Your task to perform on an android device: Search for pizza restaurants on Maps Image 0: 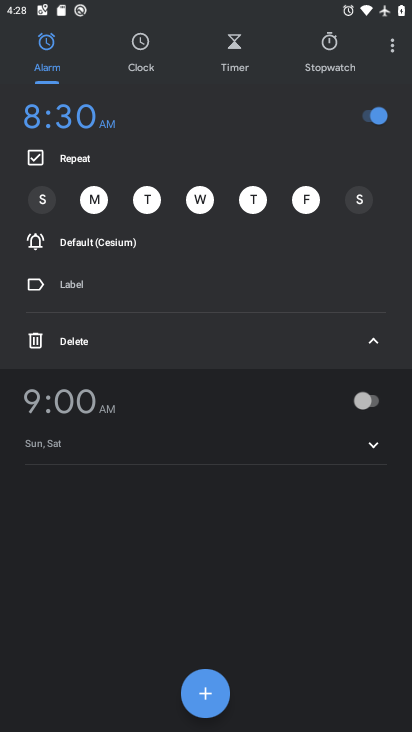
Step 0: press home button
Your task to perform on an android device: Search for pizza restaurants on Maps Image 1: 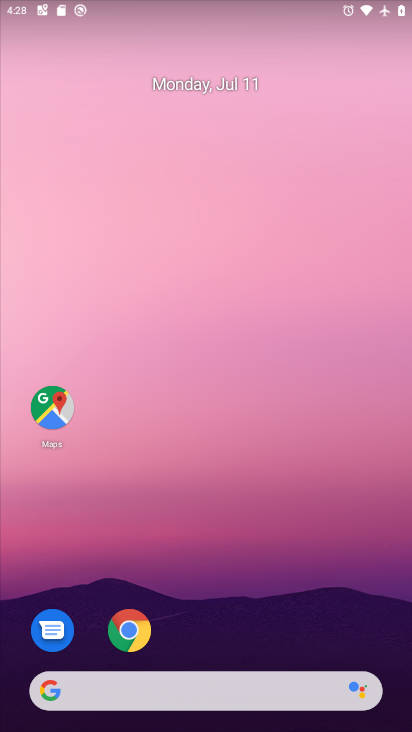
Step 1: drag from (305, 622) to (234, 6)
Your task to perform on an android device: Search for pizza restaurants on Maps Image 2: 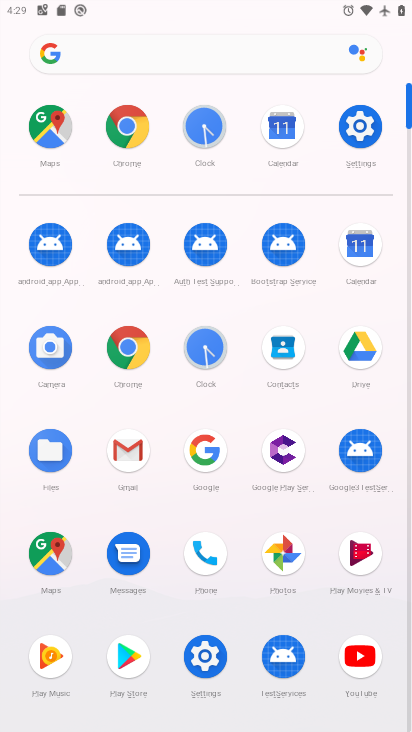
Step 2: click (70, 133)
Your task to perform on an android device: Search for pizza restaurants on Maps Image 3: 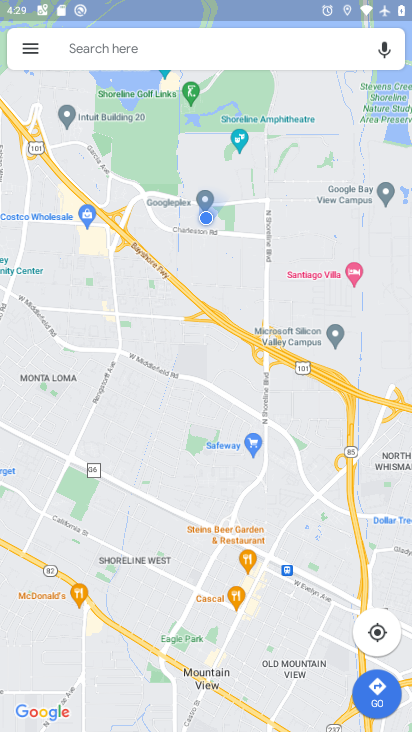
Step 3: click (26, 49)
Your task to perform on an android device: Search for pizza restaurants on Maps Image 4: 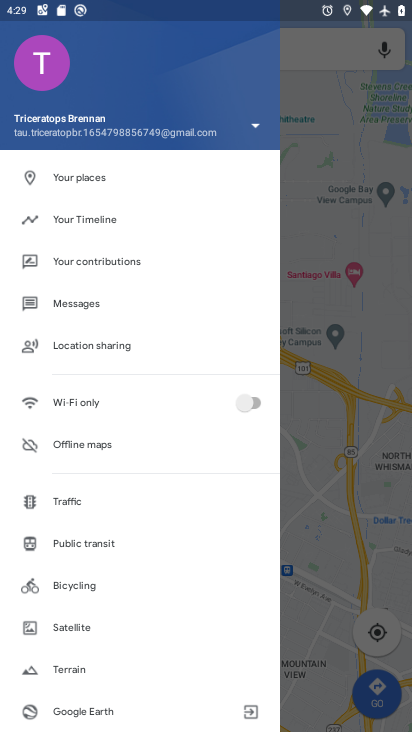
Step 4: click (363, 267)
Your task to perform on an android device: Search for pizza restaurants on Maps Image 5: 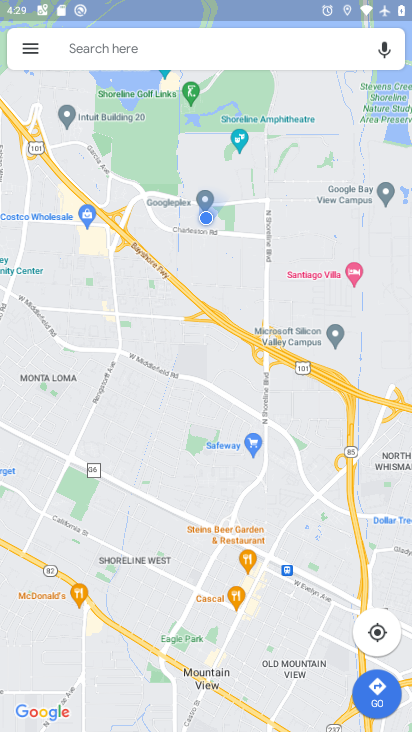
Step 5: click (254, 58)
Your task to perform on an android device: Search for pizza restaurants on Maps Image 6: 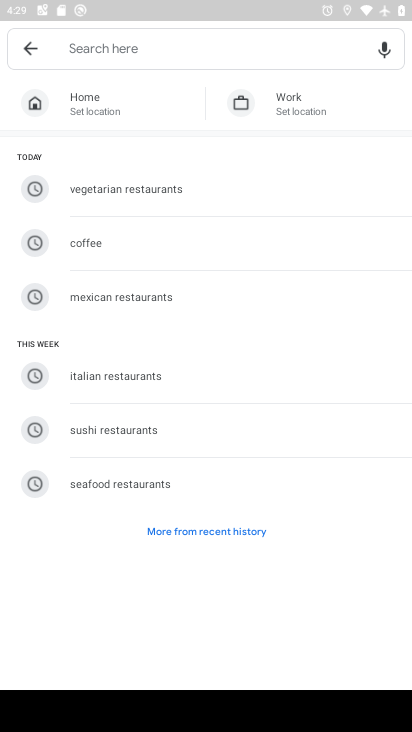
Step 6: type "pizza"
Your task to perform on an android device: Search for pizza restaurants on Maps Image 7: 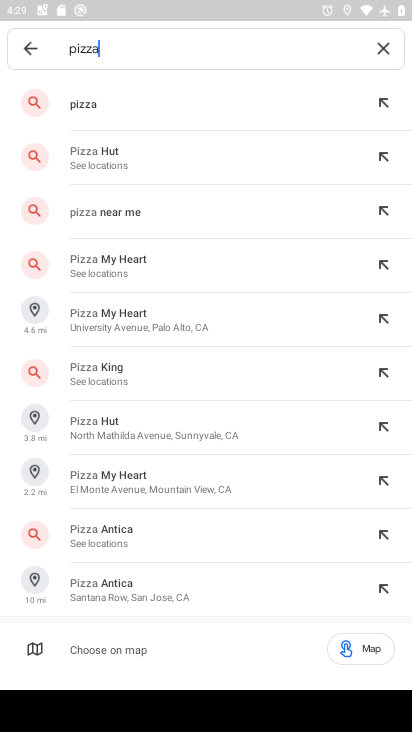
Step 7: click (166, 97)
Your task to perform on an android device: Search for pizza restaurants on Maps Image 8: 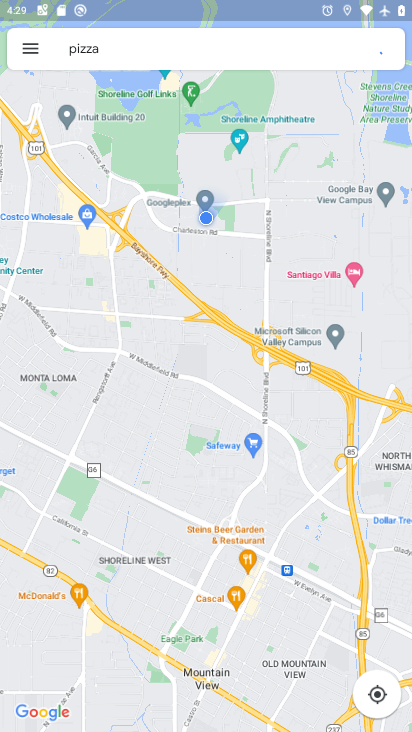
Step 8: task complete